Your task to perform on an android device: Add alienware aurora to the cart on amazon.com Image 0: 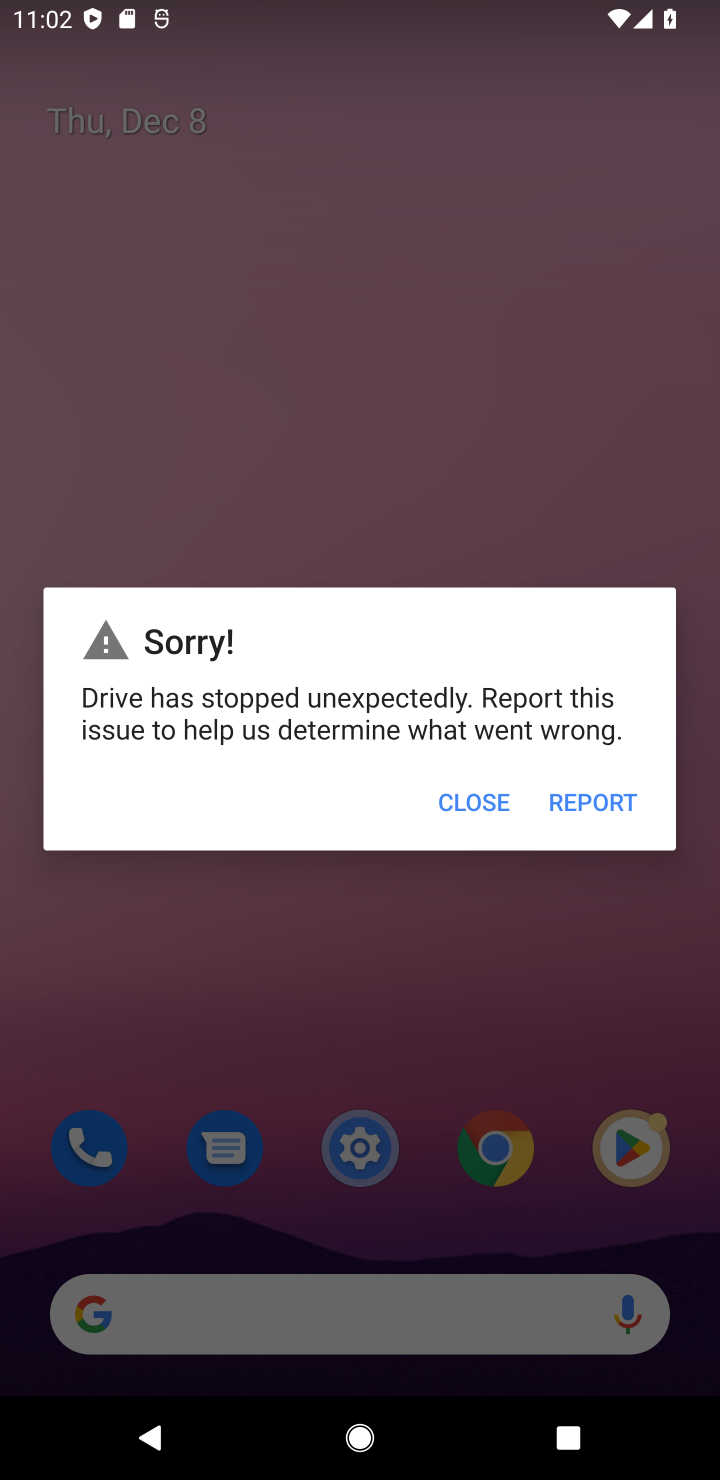
Step 0: press home button
Your task to perform on an android device: Add alienware aurora to the cart on amazon.com Image 1: 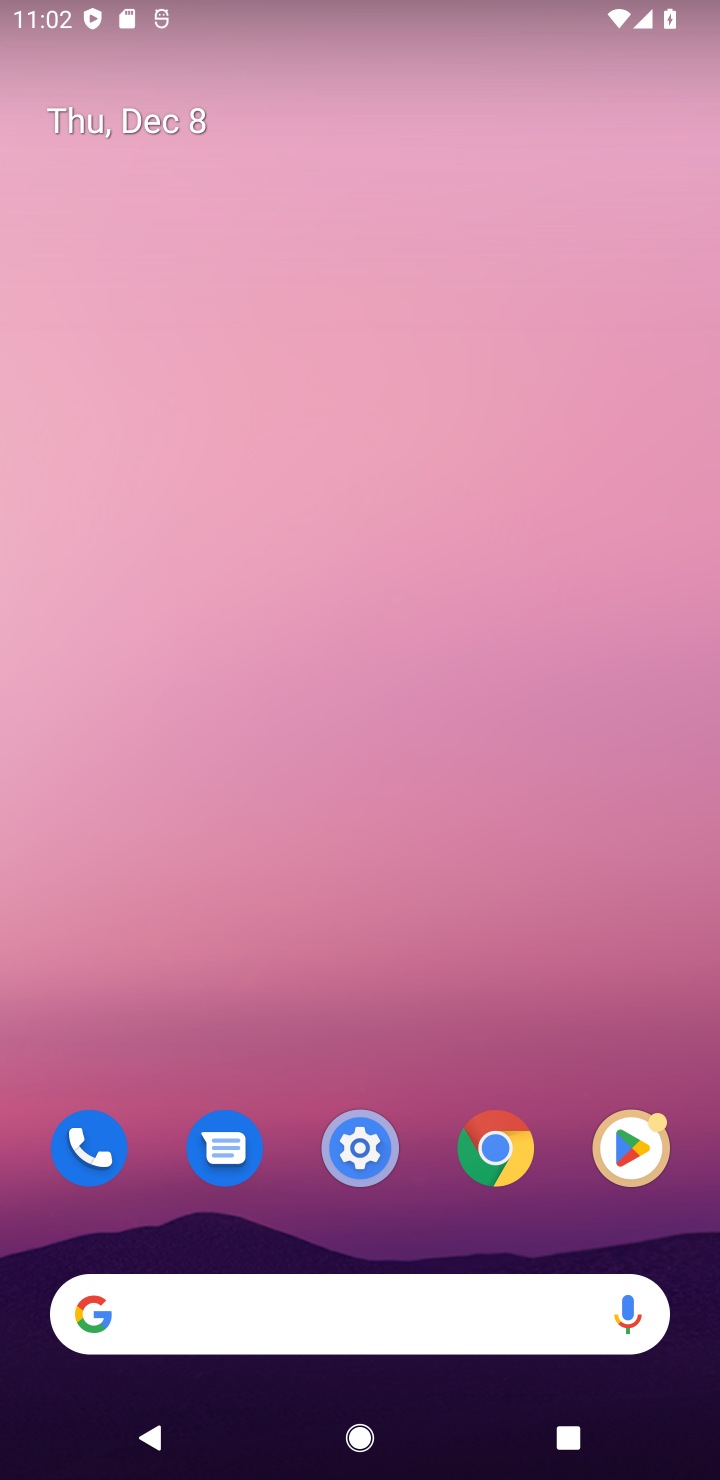
Step 1: click (315, 1308)
Your task to perform on an android device: Add alienware aurora to the cart on amazon.com Image 2: 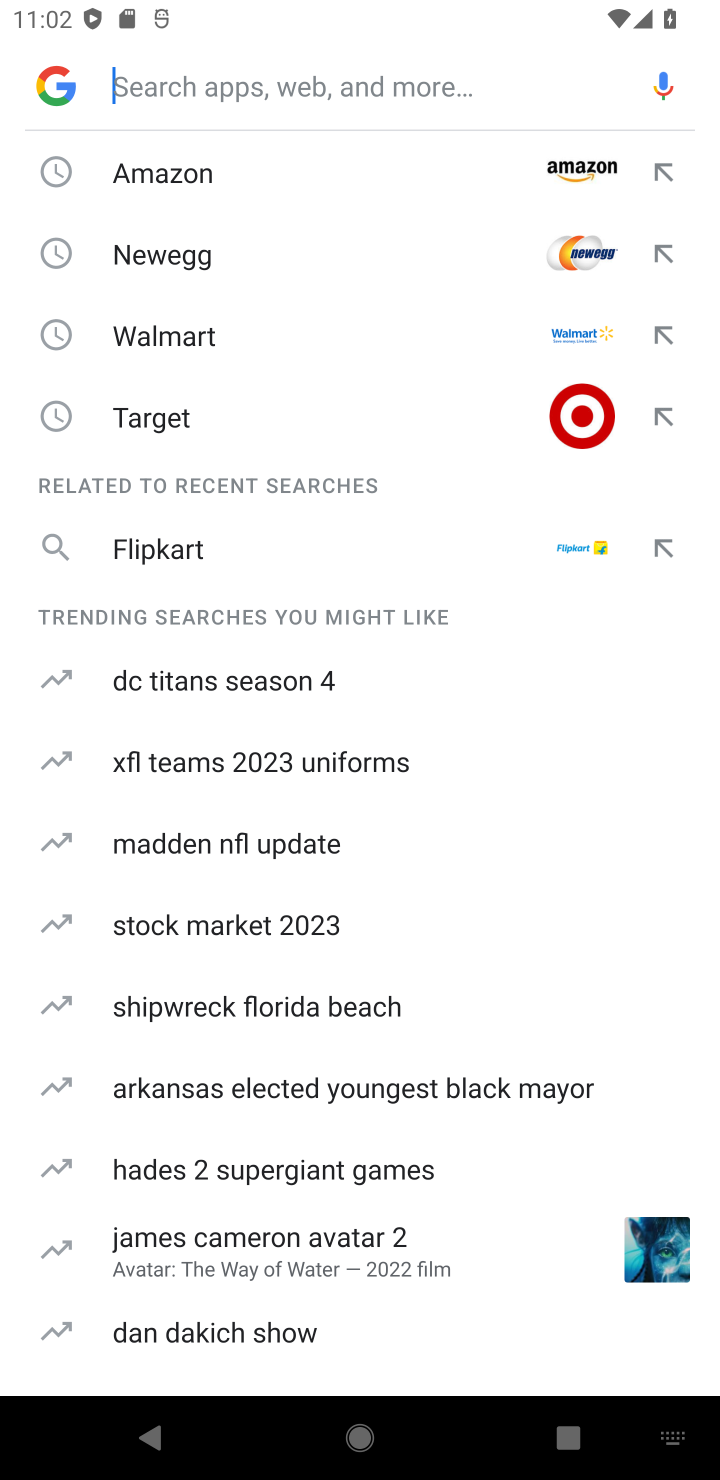
Step 2: click (148, 168)
Your task to perform on an android device: Add alienware aurora to the cart on amazon.com Image 3: 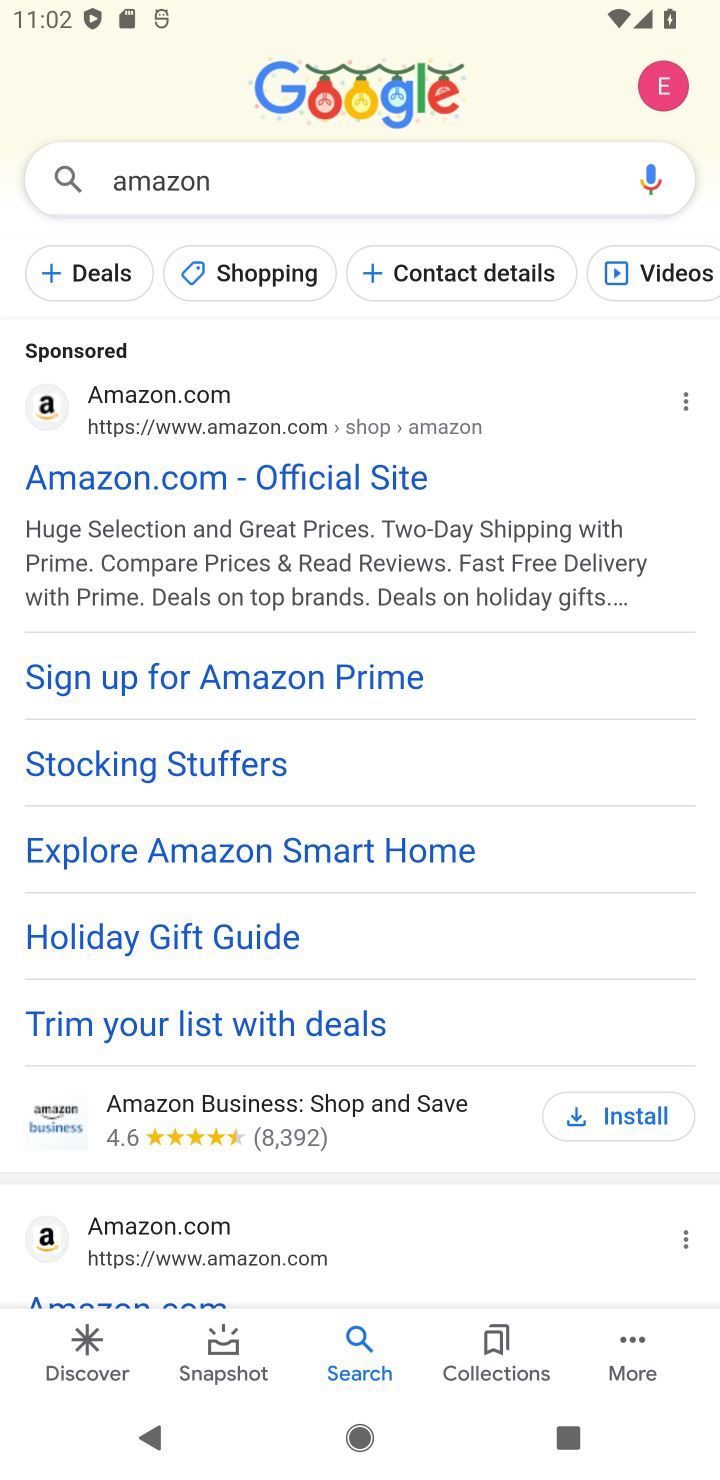
Step 3: click (170, 390)
Your task to perform on an android device: Add alienware aurora to the cart on amazon.com Image 4: 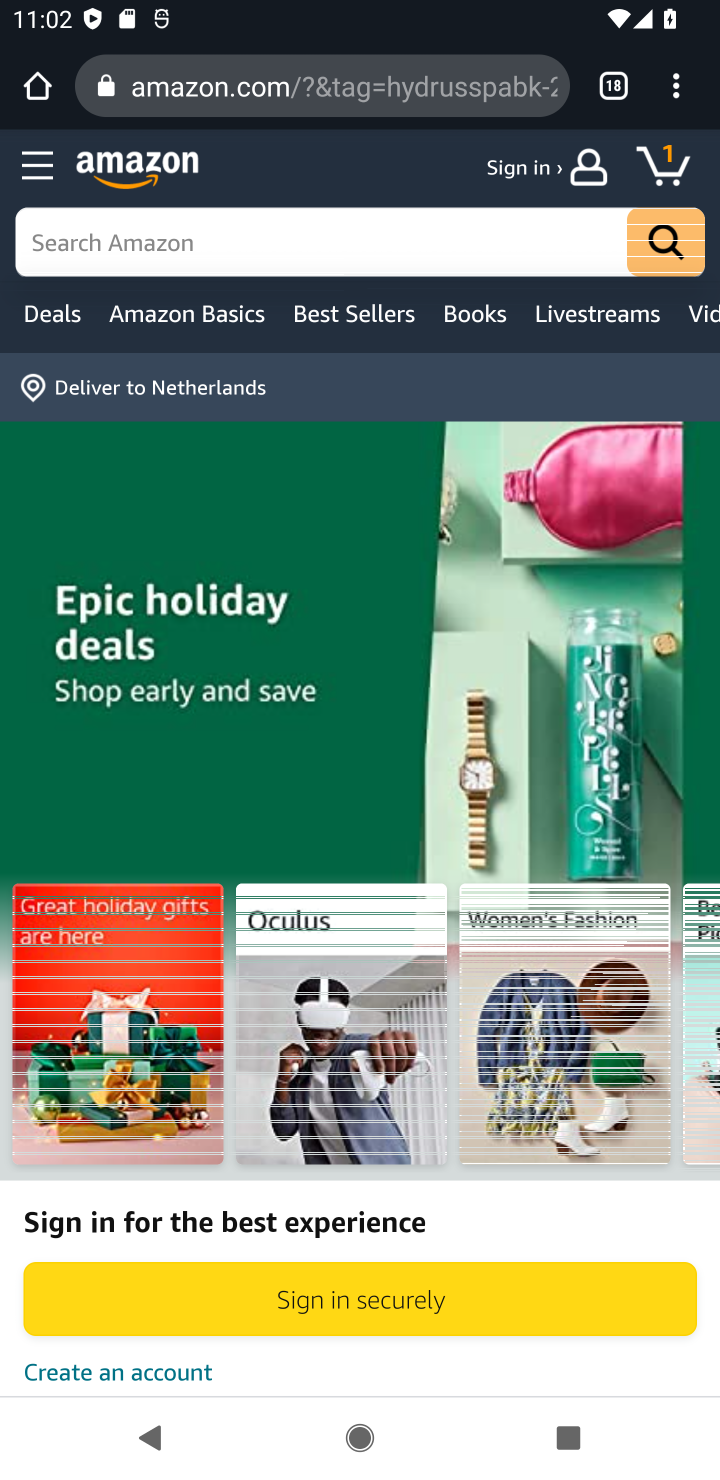
Step 4: click (192, 237)
Your task to perform on an android device: Add alienware aurora to the cart on amazon.com Image 5: 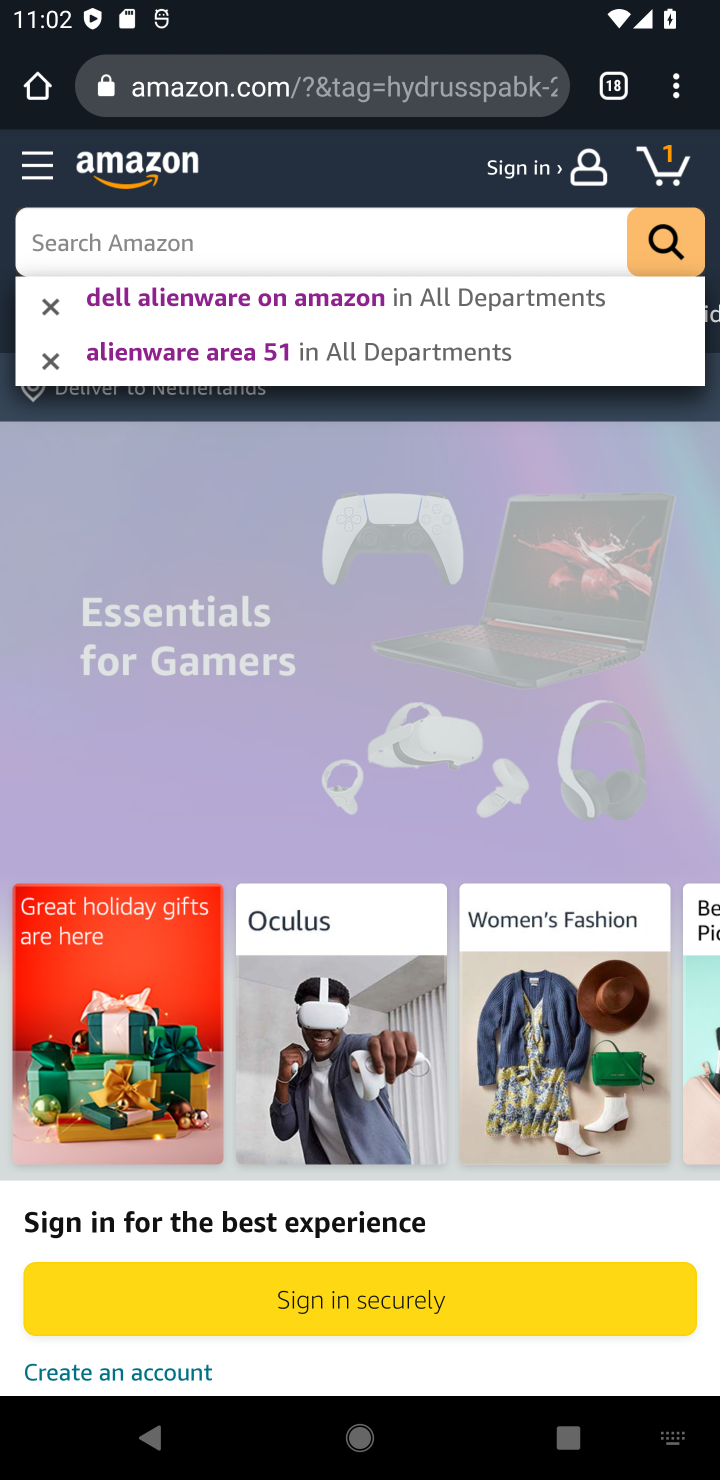
Step 5: type "alienware aurora"
Your task to perform on an android device: Add alienware aurora to the cart on amazon.com Image 6: 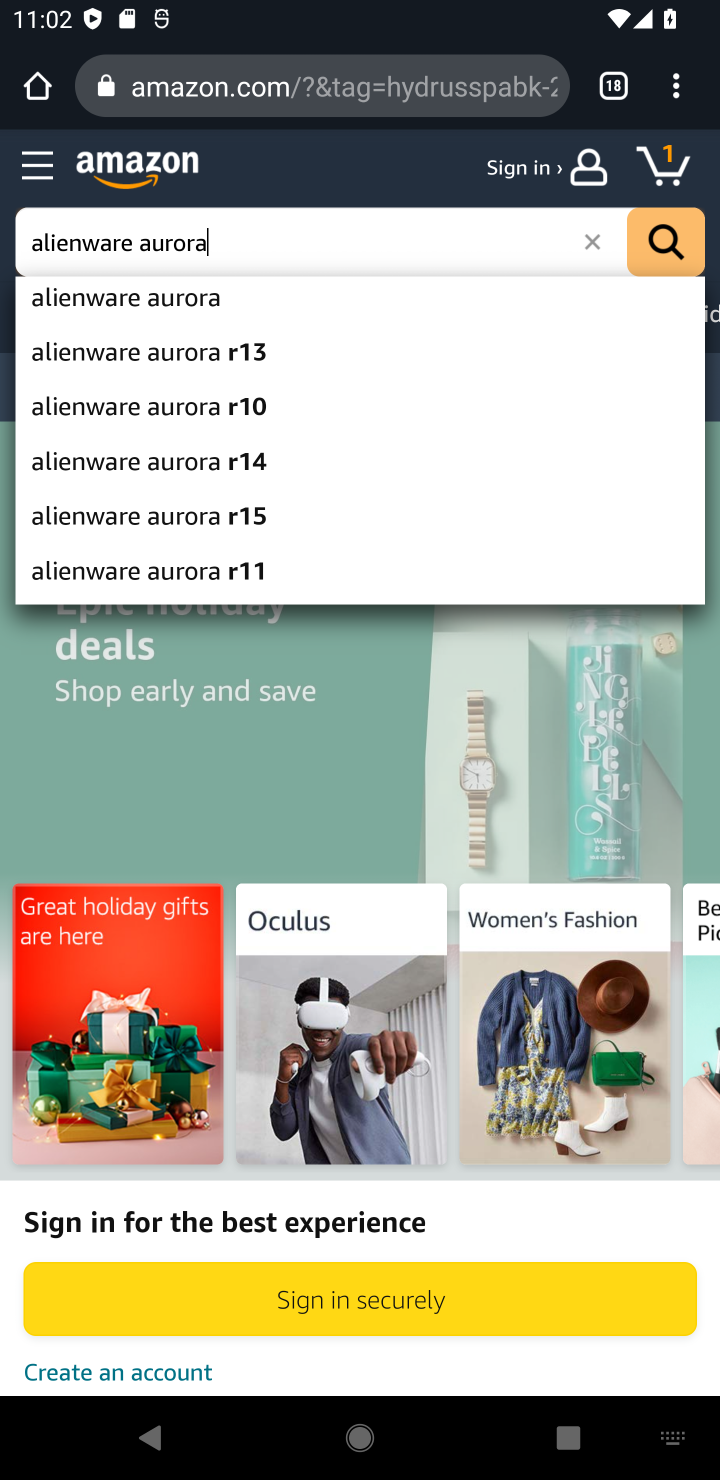
Step 6: click (239, 294)
Your task to perform on an android device: Add alienware aurora to the cart on amazon.com Image 7: 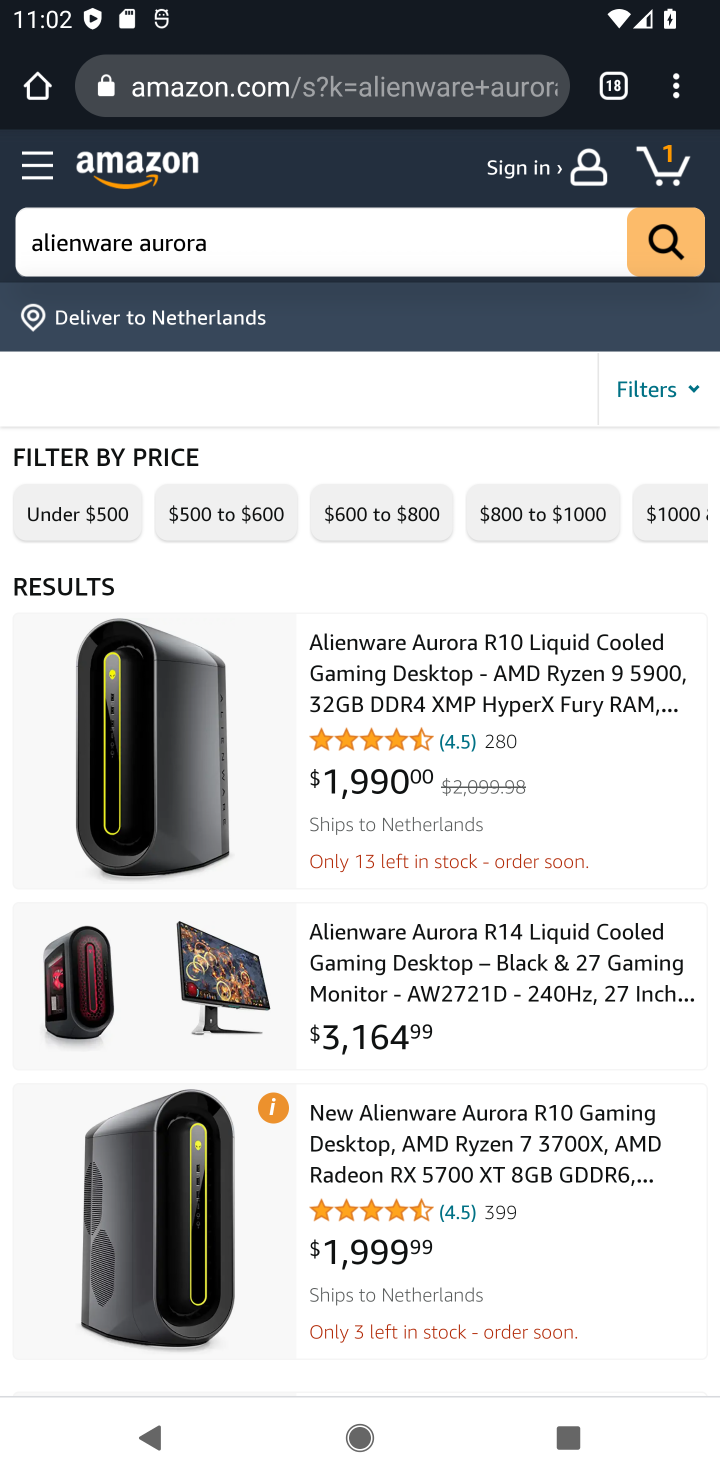
Step 7: click (507, 695)
Your task to perform on an android device: Add alienware aurora to the cart on amazon.com Image 8: 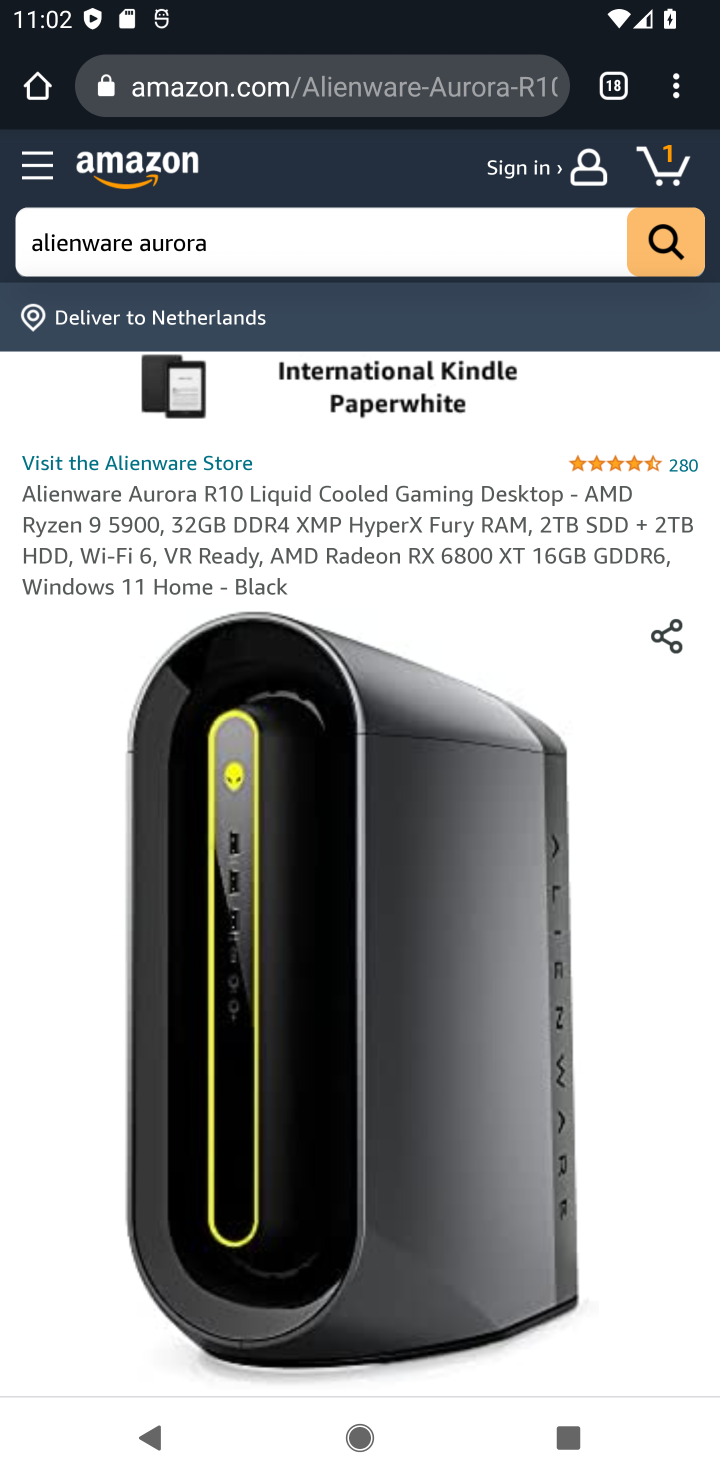
Step 8: drag from (633, 1163) to (576, 714)
Your task to perform on an android device: Add alienware aurora to the cart on amazon.com Image 9: 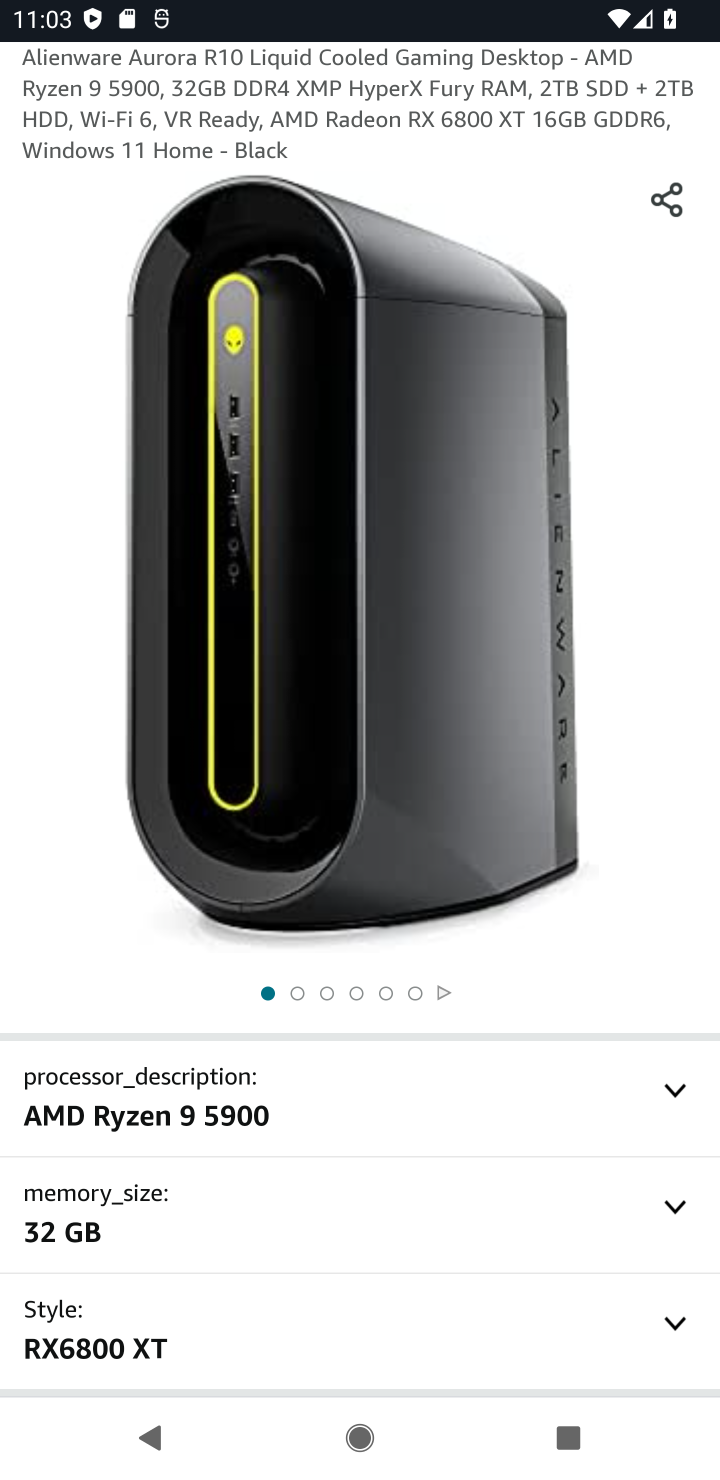
Step 9: drag from (518, 959) to (482, 492)
Your task to perform on an android device: Add alienware aurora to the cart on amazon.com Image 10: 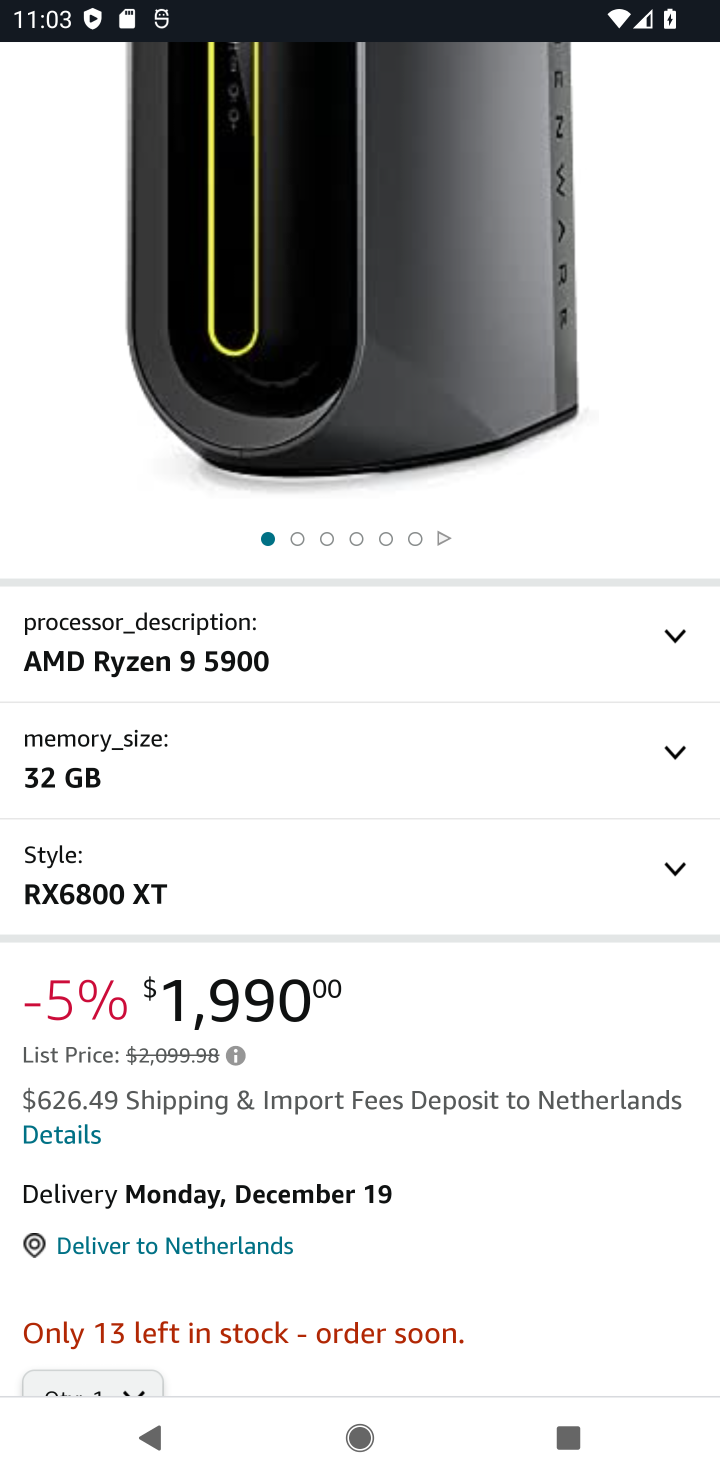
Step 10: drag from (490, 858) to (417, 394)
Your task to perform on an android device: Add alienware aurora to the cart on amazon.com Image 11: 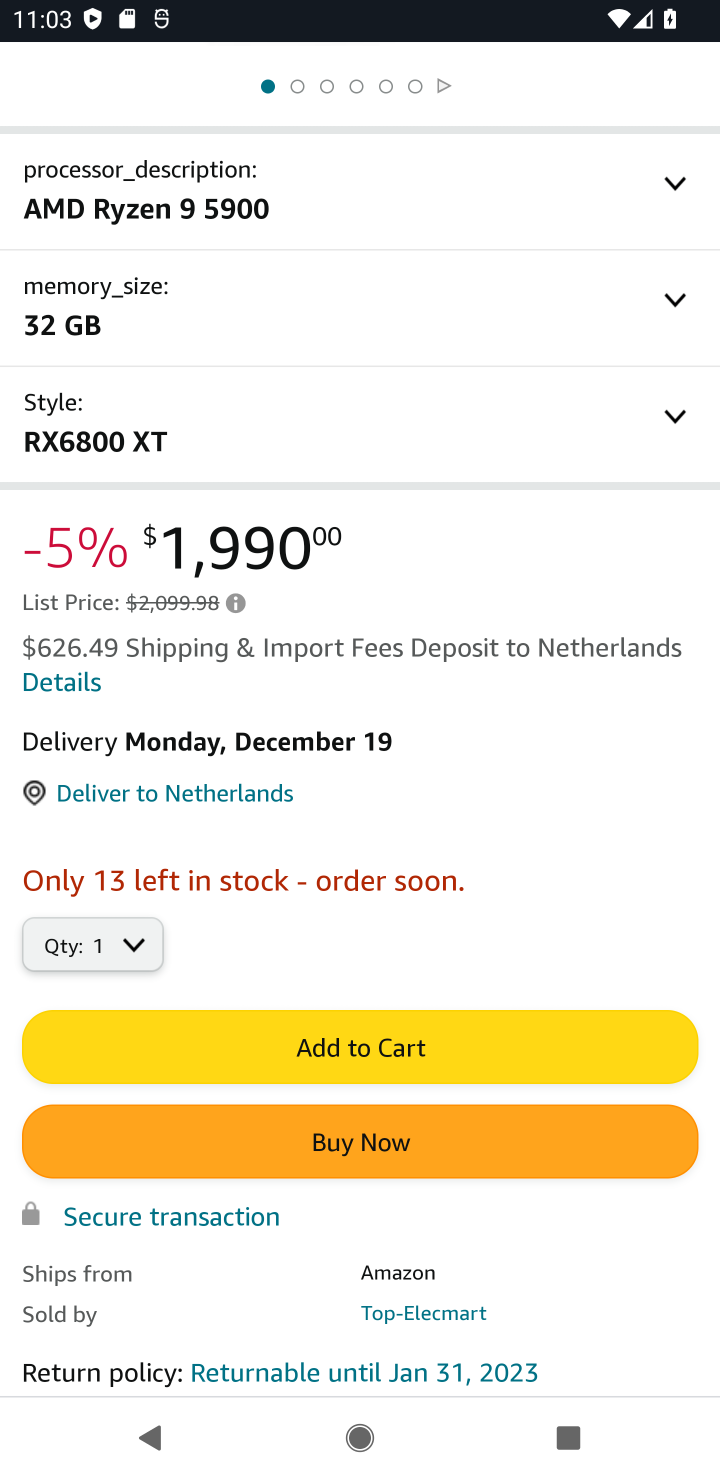
Step 11: click (335, 1056)
Your task to perform on an android device: Add alienware aurora to the cart on amazon.com Image 12: 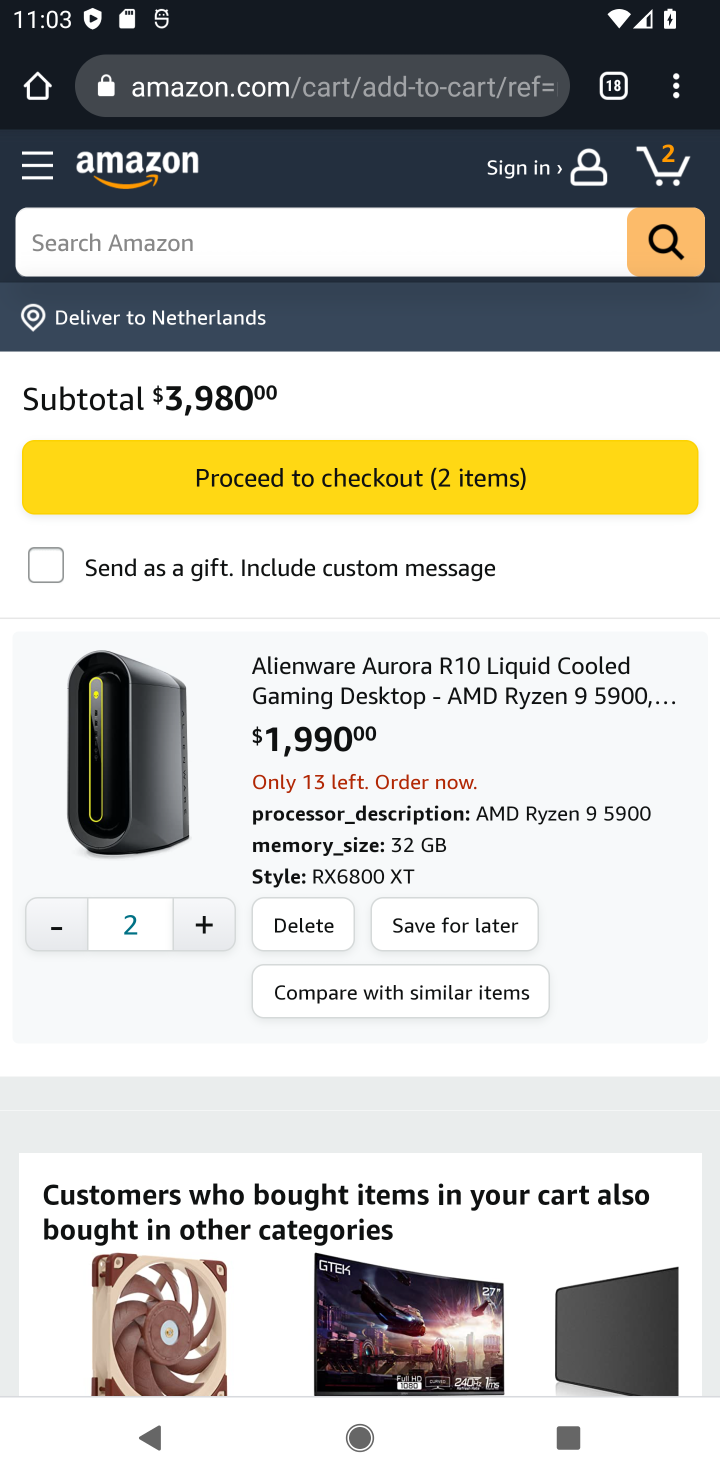
Step 12: task complete